Your task to perform on an android device: turn pop-ups off in chrome Image 0: 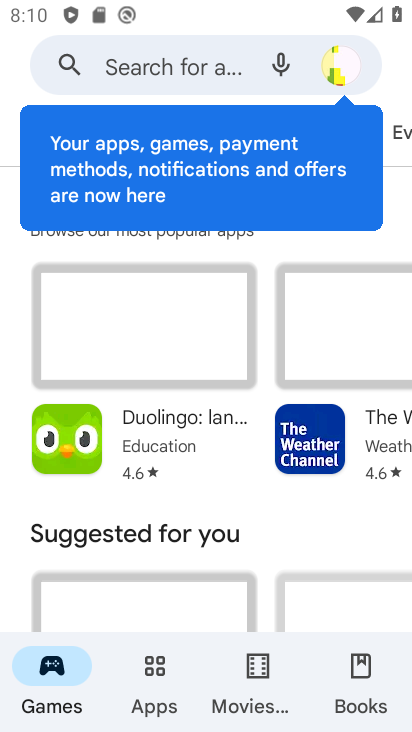
Step 0: press home button
Your task to perform on an android device: turn pop-ups off in chrome Image 1: 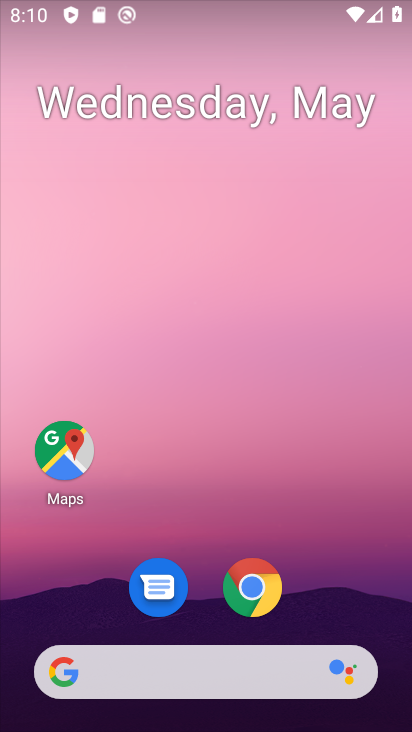
Step 1: click (254, 586)
Your task to perform on an android device: turn pop-ups off in chrome Image 2: 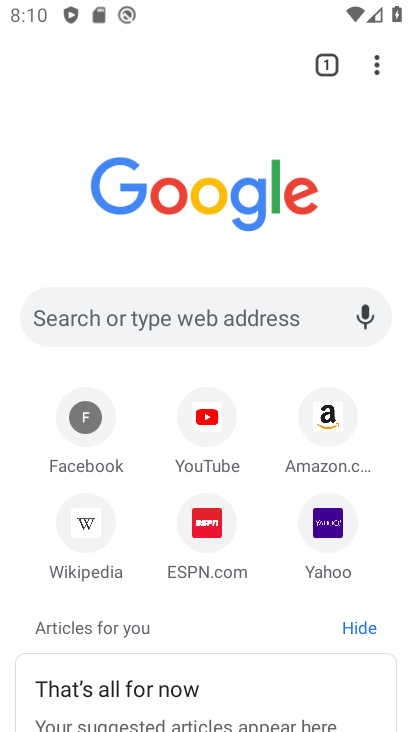
Step 2: click (374, 70)
Your task to perform on an android device: turn pop-ups off in chrome Image 3: 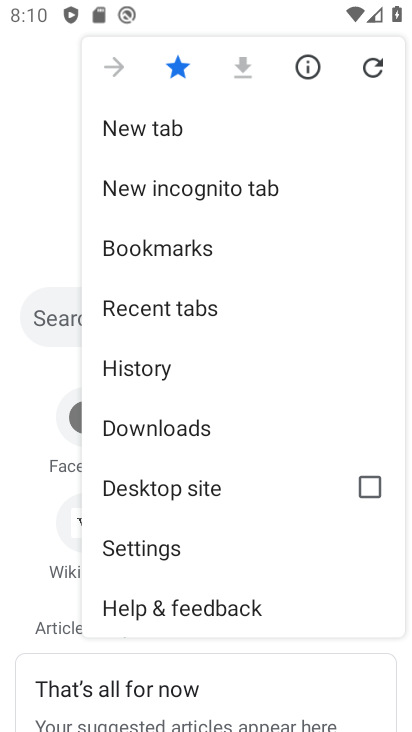
Step 3: click (137, 544)
Your task to perform on an android device: turn pop-ups off in chrome Image 4: 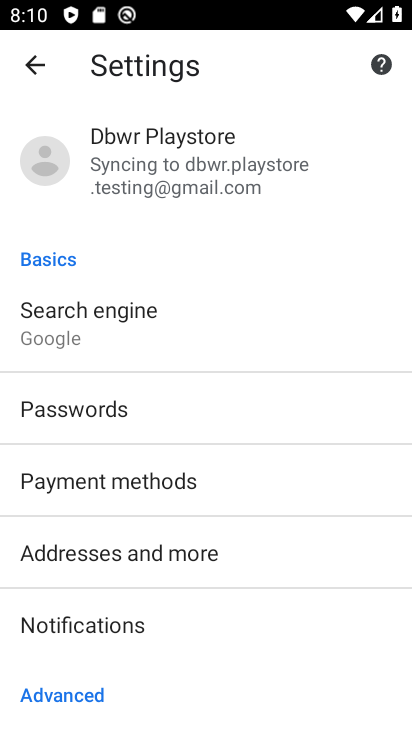
Step 4: drag from (200, 672) to (230, 212)
Your task to perform on an android device: turn pop-ups off in chrome Image 5: 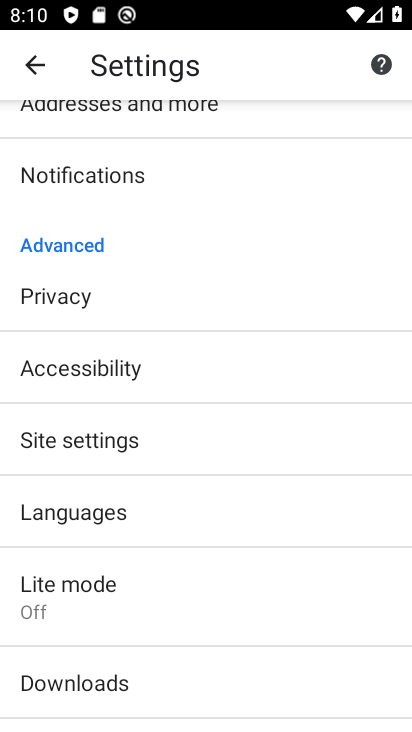
Step 5: click (74, 430)
Your task to perform on an android device: turn pop-ups off in chrome Image 6: 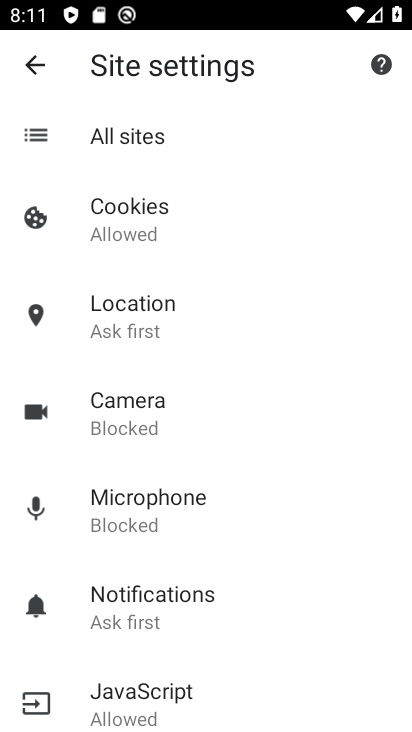
Step 6: drag from (200, 617) to (200, 191)
Your task to perform on an android device: turn pop-ups off in chrome Image 7: 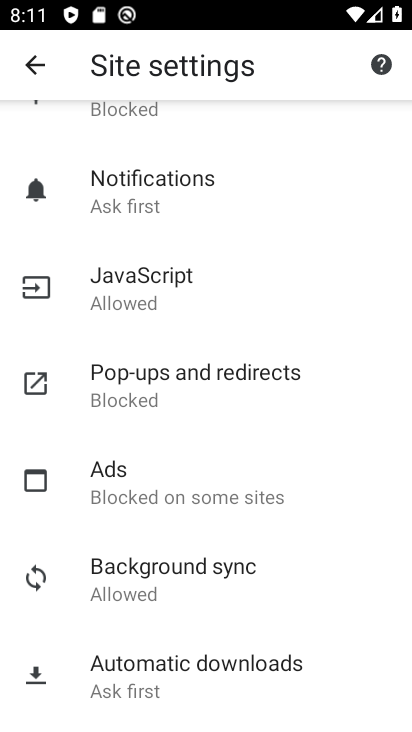
Step 7: click (115, 362)
Your task to perform on an android device: turn pop-ups off in chrome Image 8: 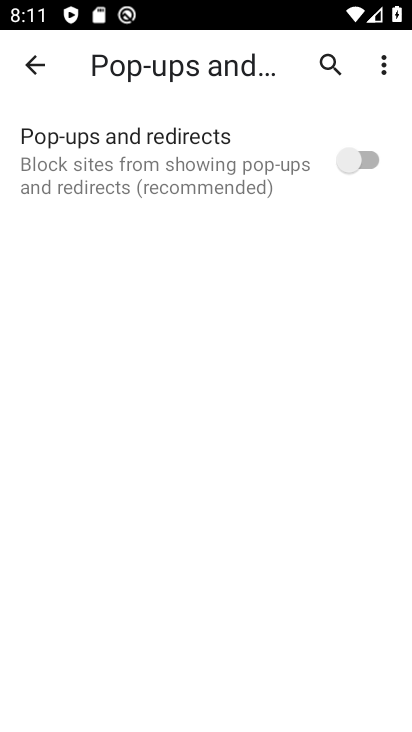
Step 8: task complete